Your task to perform on an android device: open chrome and create a bookmark for the current page Image 0: 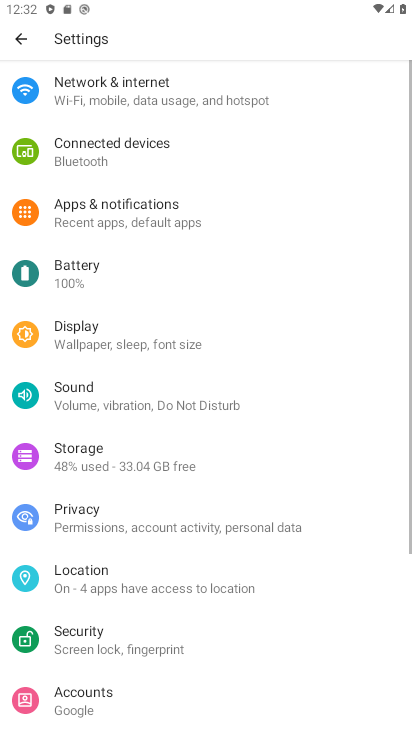
Step 0: press home button
Your task to perform on an android device: open chrome and create a bookmark for the current page Image 1: 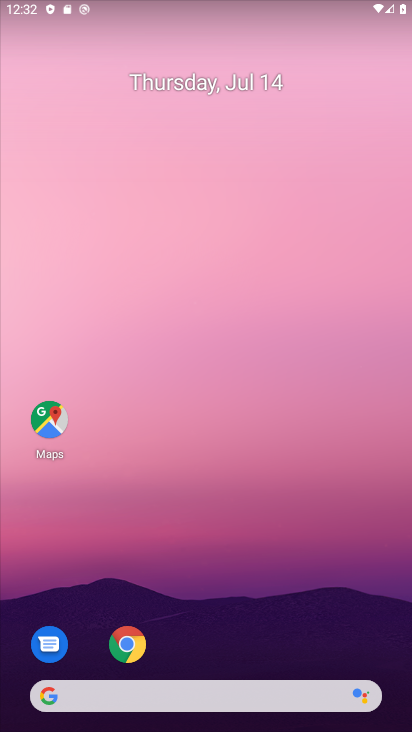
Step 1: drag from (278, 640) to (227, 144)
Your task to perform on an android device: open chrome and create a bookmark for the current page Image 2: 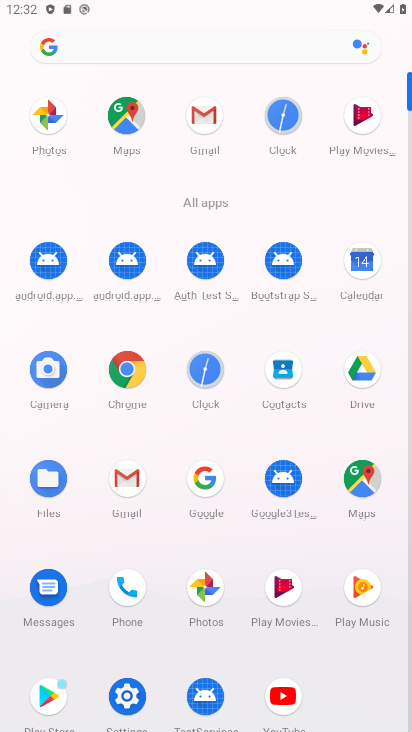
Step 2: click (122, 364)
Your task to perform on an android device: open chrome and create a bookmark for the current page Image 3: 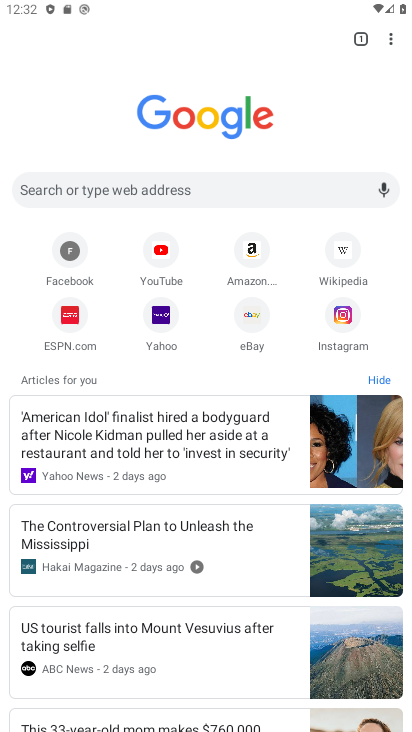
Step 3: task complete